Your task to perform on an android device: turn on showing notifications on the lock screen Image 0: 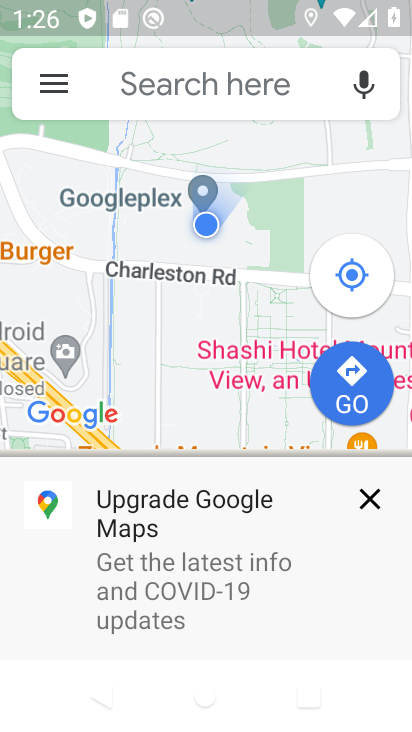
Step 0: press home button
Your task to perform on an android device: turn on showing notifications on the lock screen Image 1: 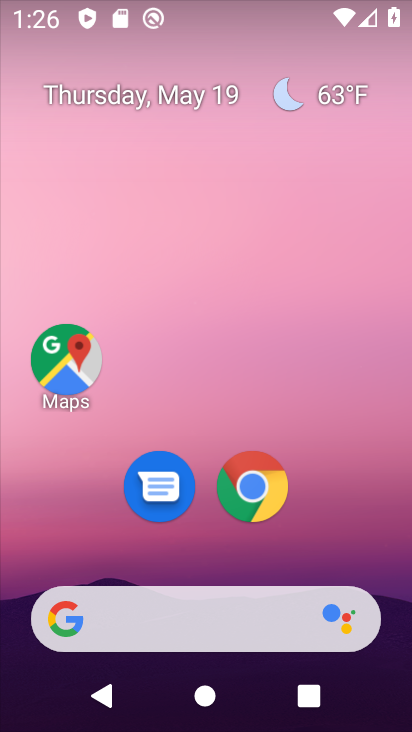
Step 1: drag from (320, 536) to (222, 20)
Your task to perform on an android device: turn on showing notifications on the lock screen Image 2: 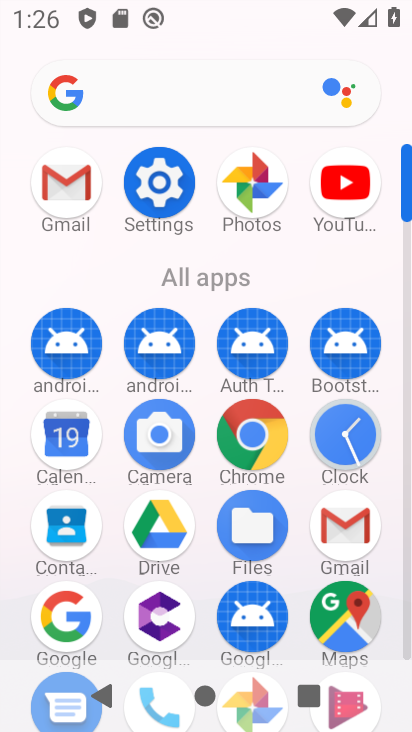
Step 2: click (154, 173)
Your task to perform on an android device: turn on showing notifications on the lock screen Image 3: 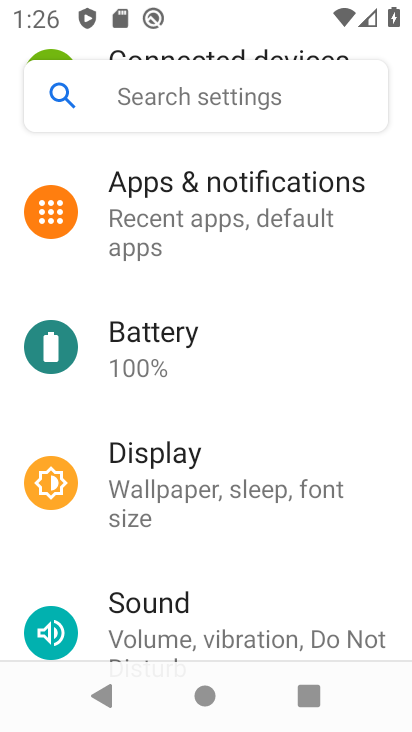
Step 3: click (233, 232)
Your task to perform on an android device: turn on showing notifications on the lock screen Image 4: 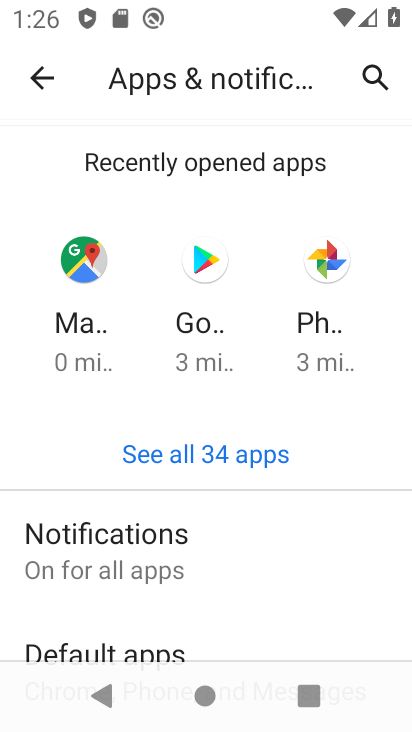
Step 4: click (216, 553)
Your task to perform on an android device: turn on showing notifications on the lock screen Image 5: 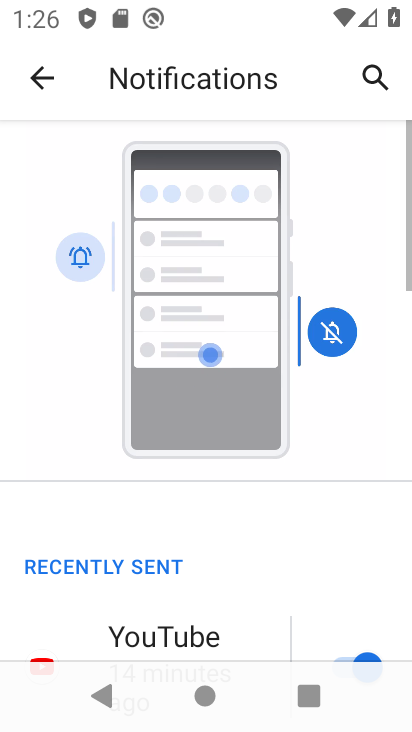
Step 5: drag from (257, 611) to (213, 59)
Your task to perform on an android device: turn on showing notifications on the lock screen Image 6: 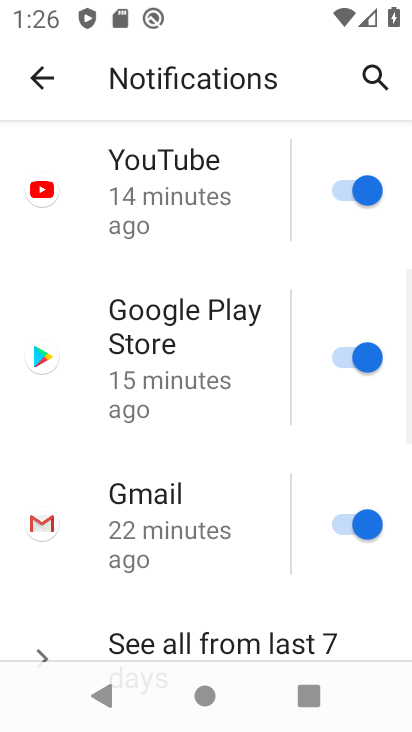
Step 6: drag from (216, 531) to (204, 113)
Your task to perform on an android device: turn on showing notifications on the lock screen Image 7: 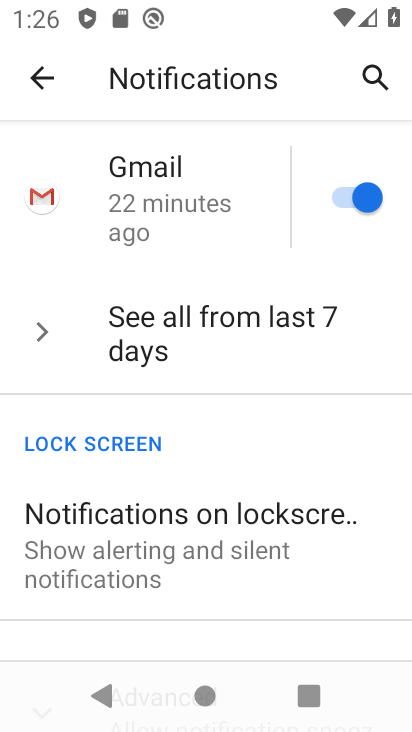
Step 7: click (198, 534)
Your task to perform on an android device: turn on showing notifications on the lock screen Image 8: 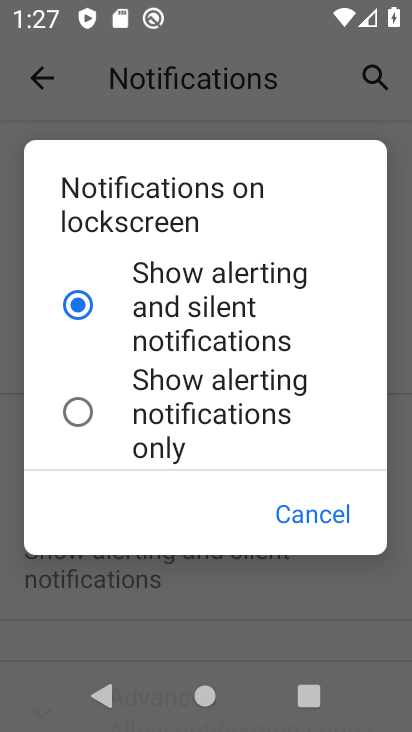
Step 8: click (305, 511)
Your task to perform on an android device: turn on showing notifications on the lock screen Image 9: 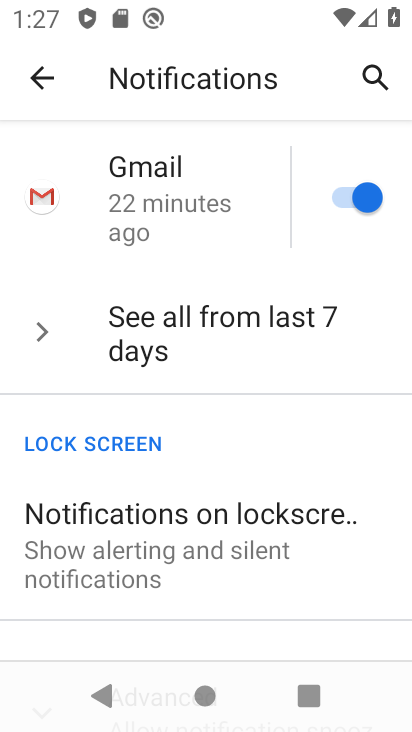
Step 9: click (219, 549)
Your task to perform on an android device: turn on showing notifications on the lock screen Image 10: 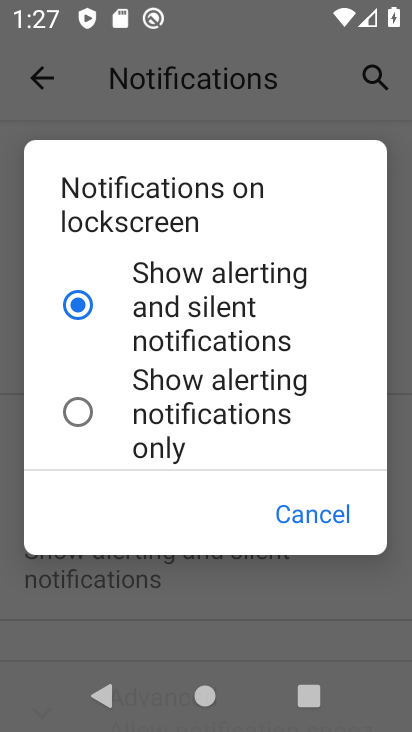
Step 10: task complete